Your task to perform on an android device: turn off priority inbox in the gmail app Image 0: 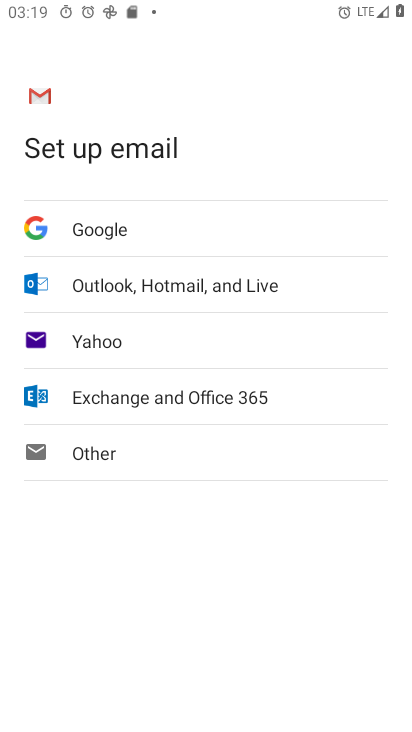
Step 0: press home button
Your task to perform on an android device: turn off priority inbox in the gmail app Image 1: 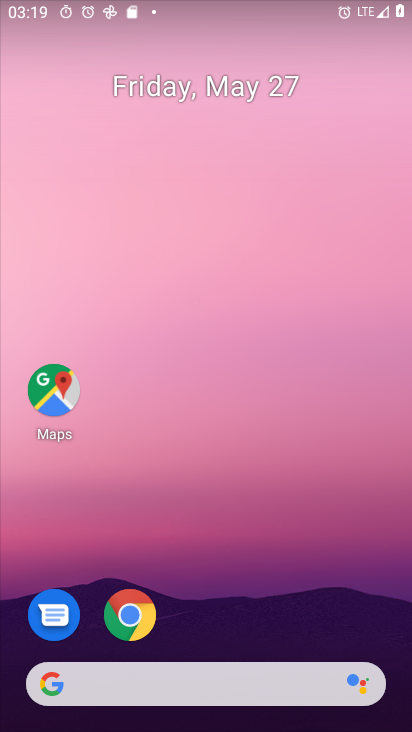
Step 1: drag from (365, 586) to (363, 212)
Your task to perform on an android device: turn off priority inbox in the gmail app Image 2: 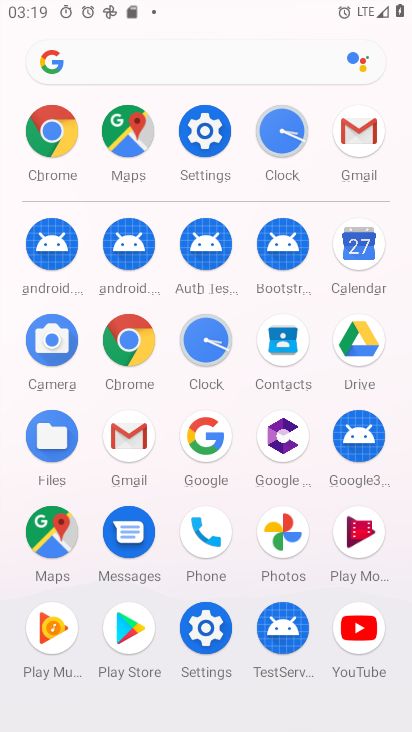
Step 2: click (131, 452)
Your task to perform on an android device: turn off priority inbox in the gmail app Image 3: 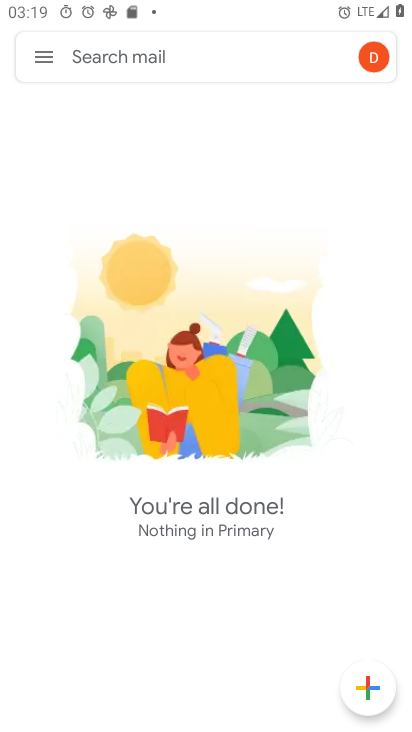
Step 3: click (47, 62)
Your task to perform on an android device: turn off priority inbox in the gmail app Image 4: 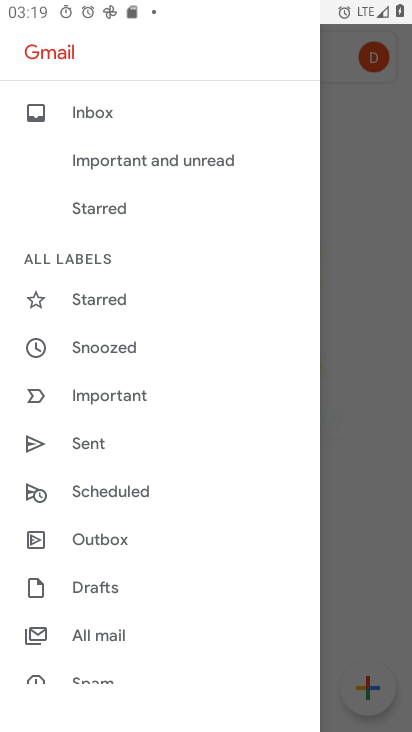
Step 4: drag from (219, 518) to (226, 427)
Your task to perform on an android device: turn off priority inbox in the gmail app Image 5: 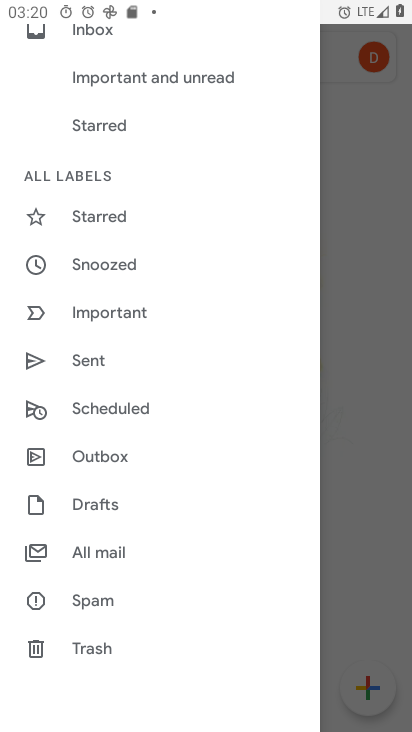
Step 5: drag from (181, 565) to (178, 470)
Your task to perform on an android device: turn off priority inbox in the gmail app Image 6: 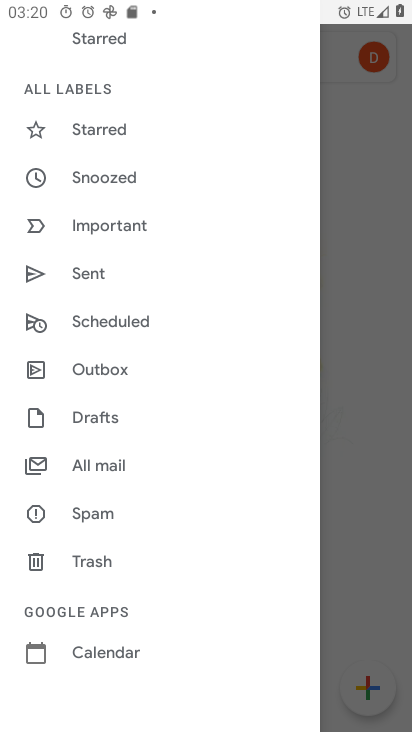
Step 6: drag from (227, 631) to (235, 484)
Your task to perform on an android device: turn off priority inbox in the gmail app Image 7: 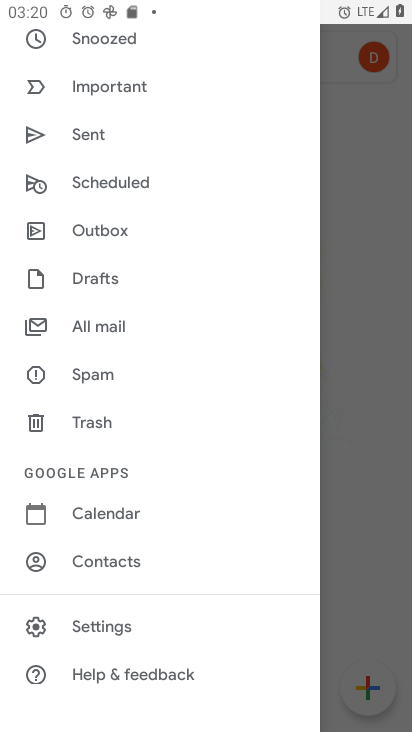
Step 7: click (163, 625)
Your task to perform on an android device: turn off priority inbox in the gmail app Image 8: 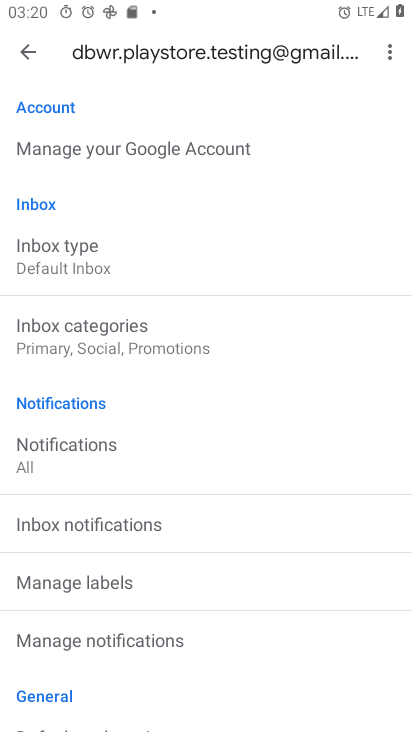
Step 8: task complete